Your task to perform on an android device: clear all cookies in the chrome app Image 0: 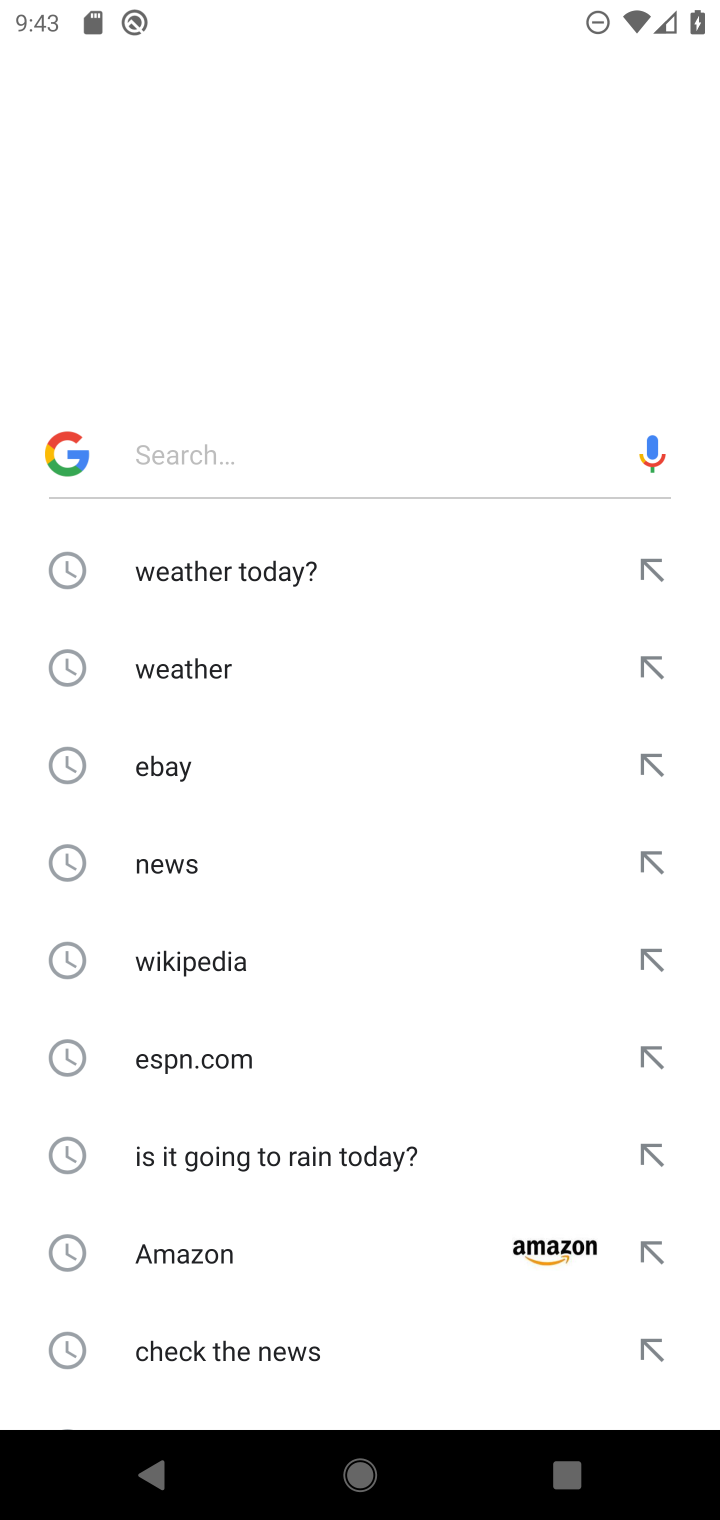
Step 0: press home button
Your task to perform on an android device: clear all cookies in the chrome app Image 1: 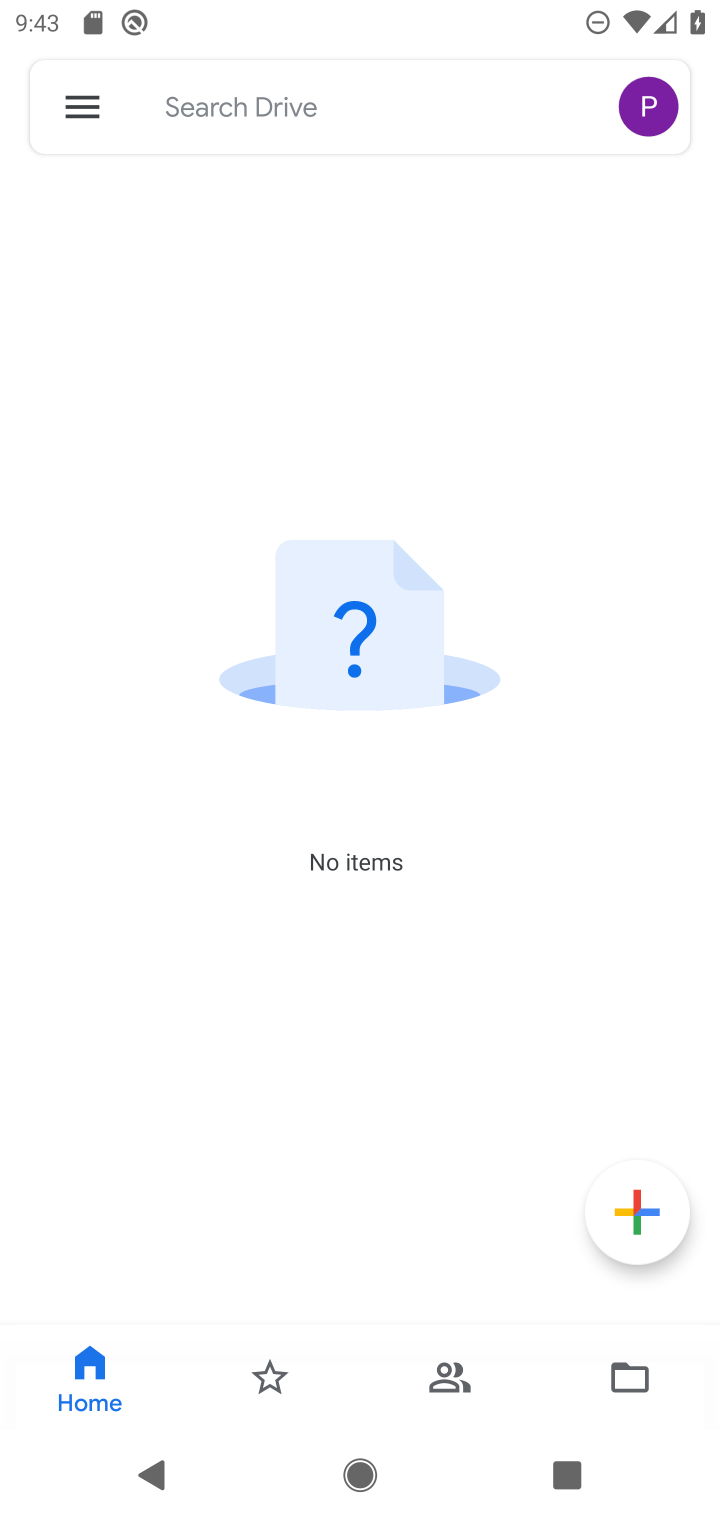
Step 1: press home button
Your task to perform on an android device: clear all cookies in the chrome app Image 2: 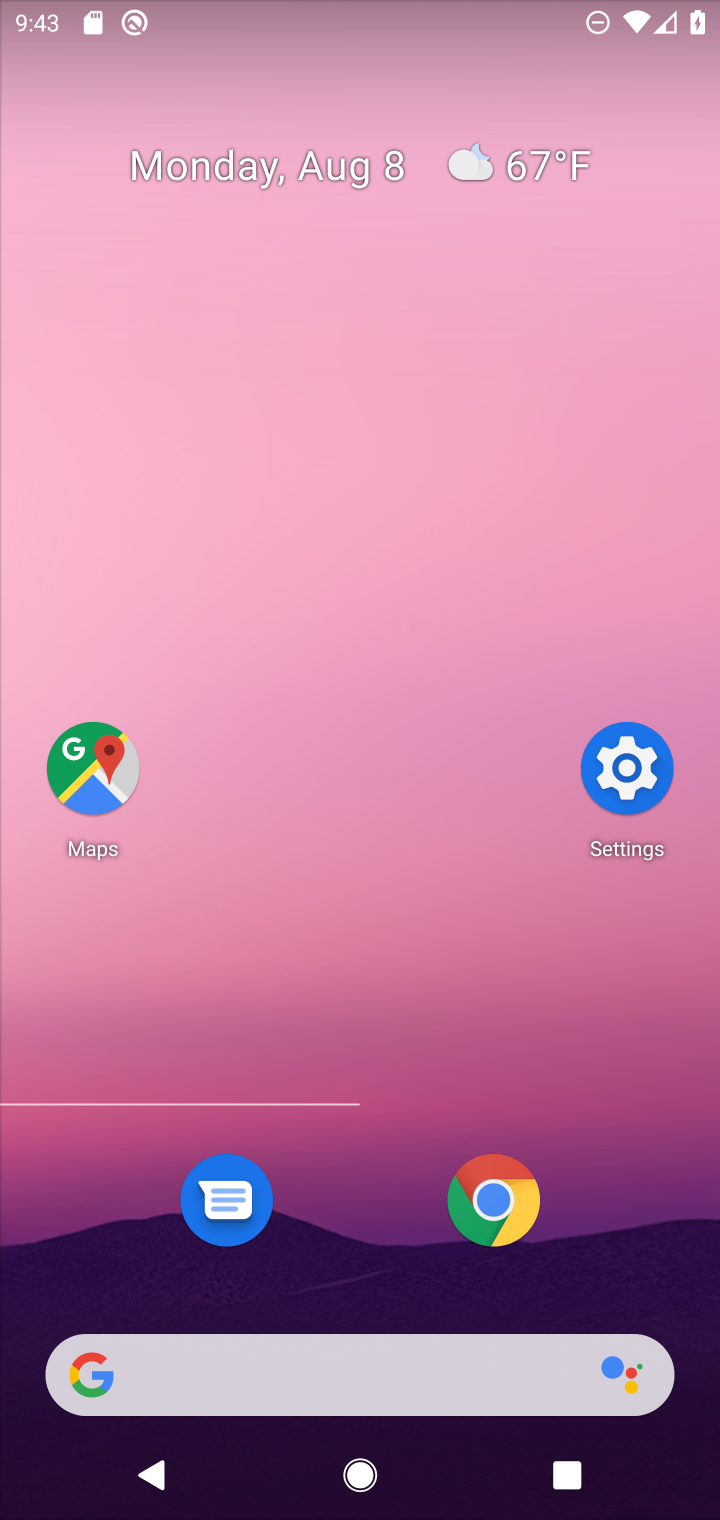
Step 2: press home button
Your task to perform on an android device: clear all cookies in the chrome app Image 3: 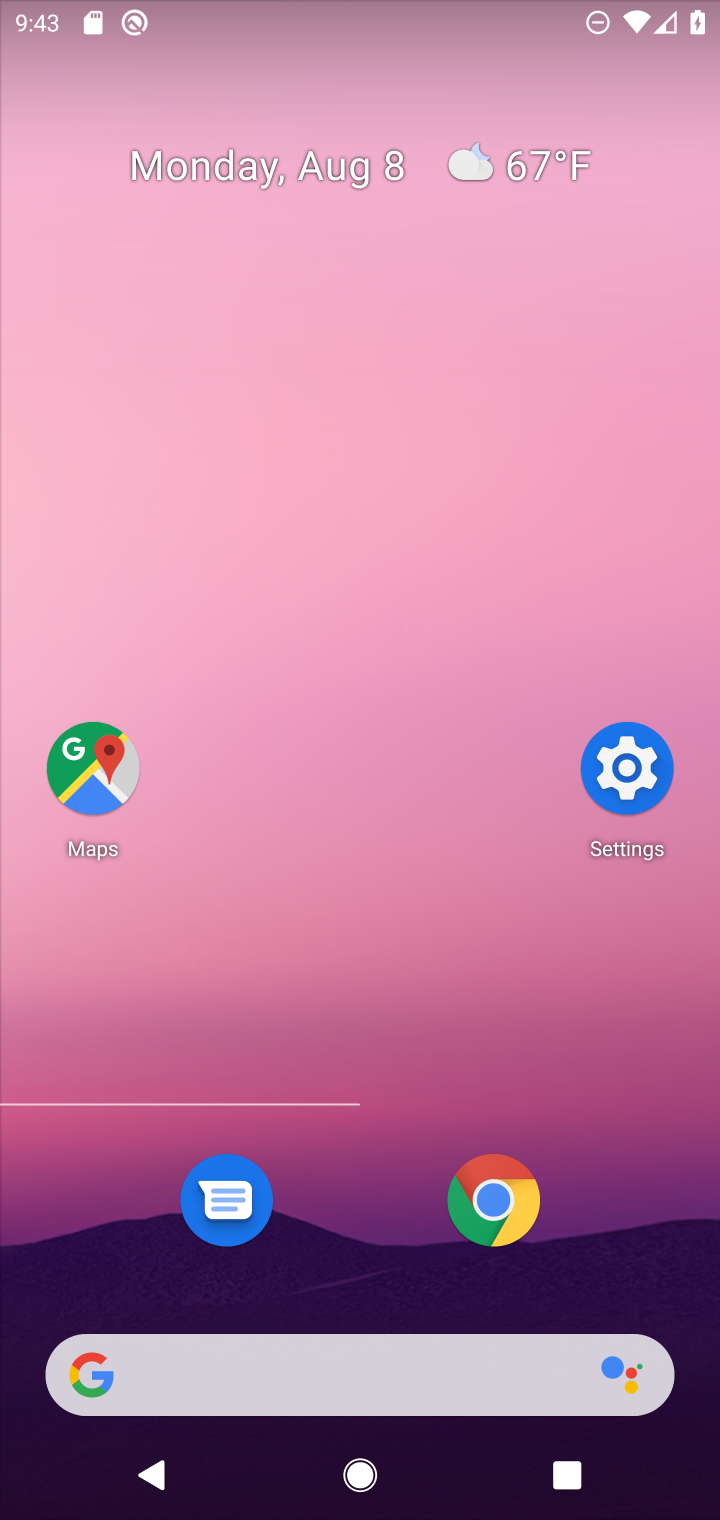
Step 3: click (490, 1189)
Your task to perform on an android device: clear all cookies in the chrome app Image 4: 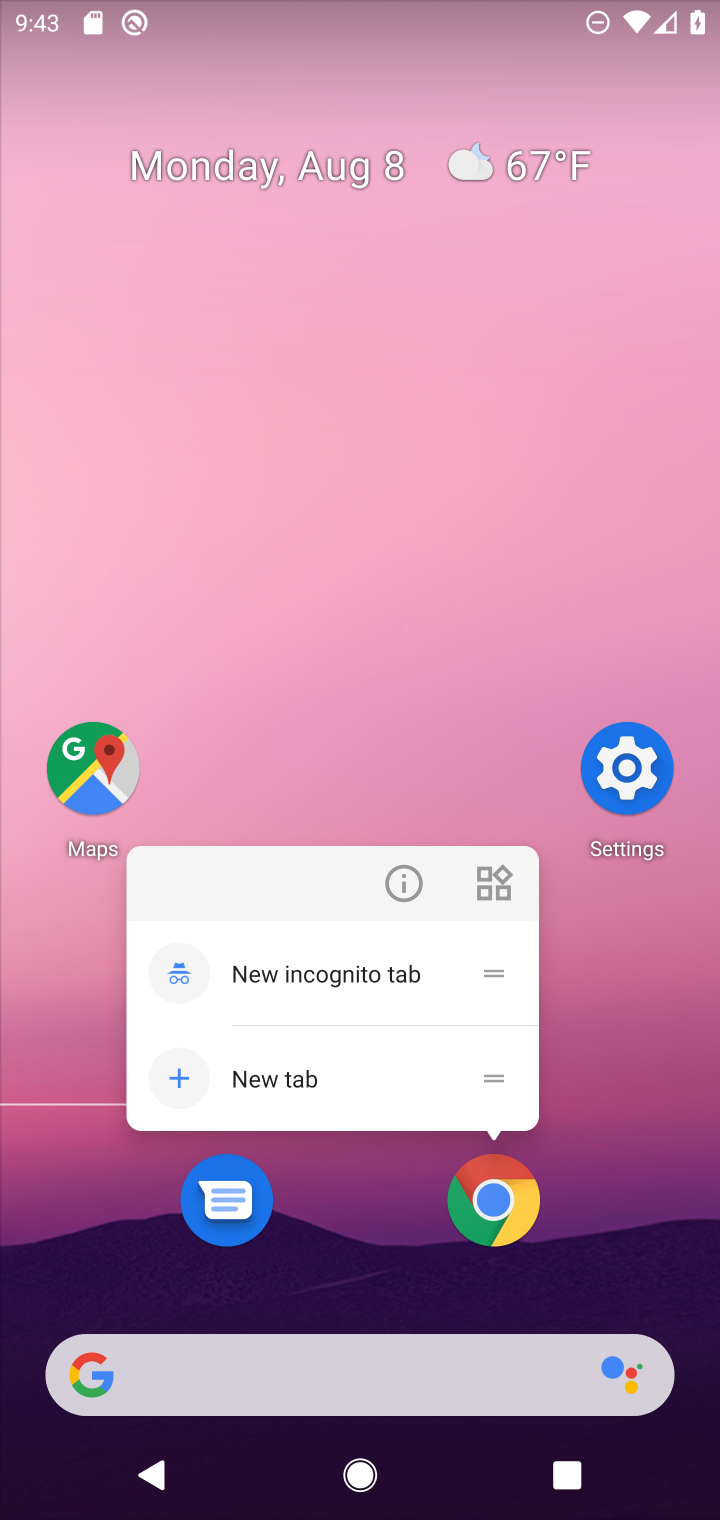
Step 4: click (490, 1196)
Your task to perform on an android device: clear all cookies in the chrome app Image 5: 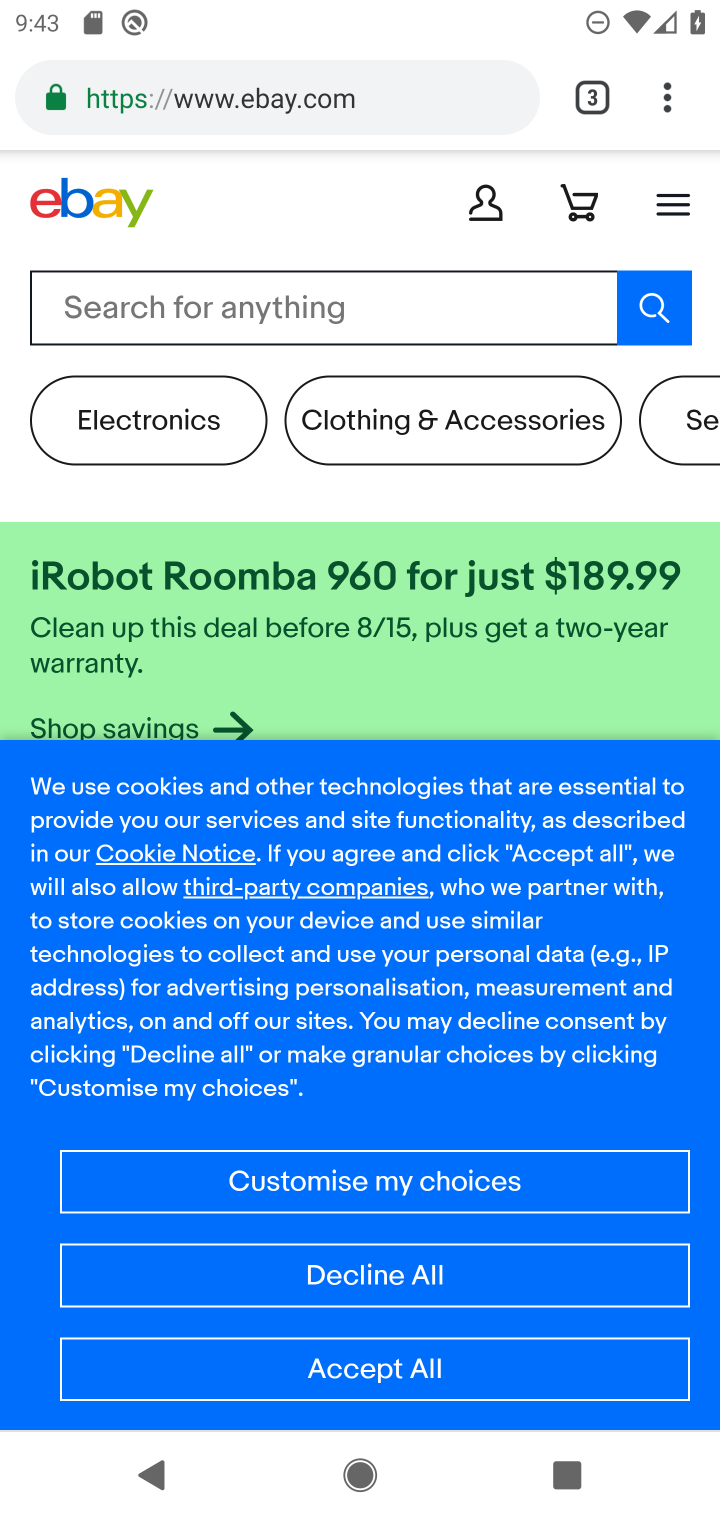
Step 5: drag from (660, 100) to (452, 1239)
Your task to perform on an android device: clear all cookies in the chrome app Image 6: 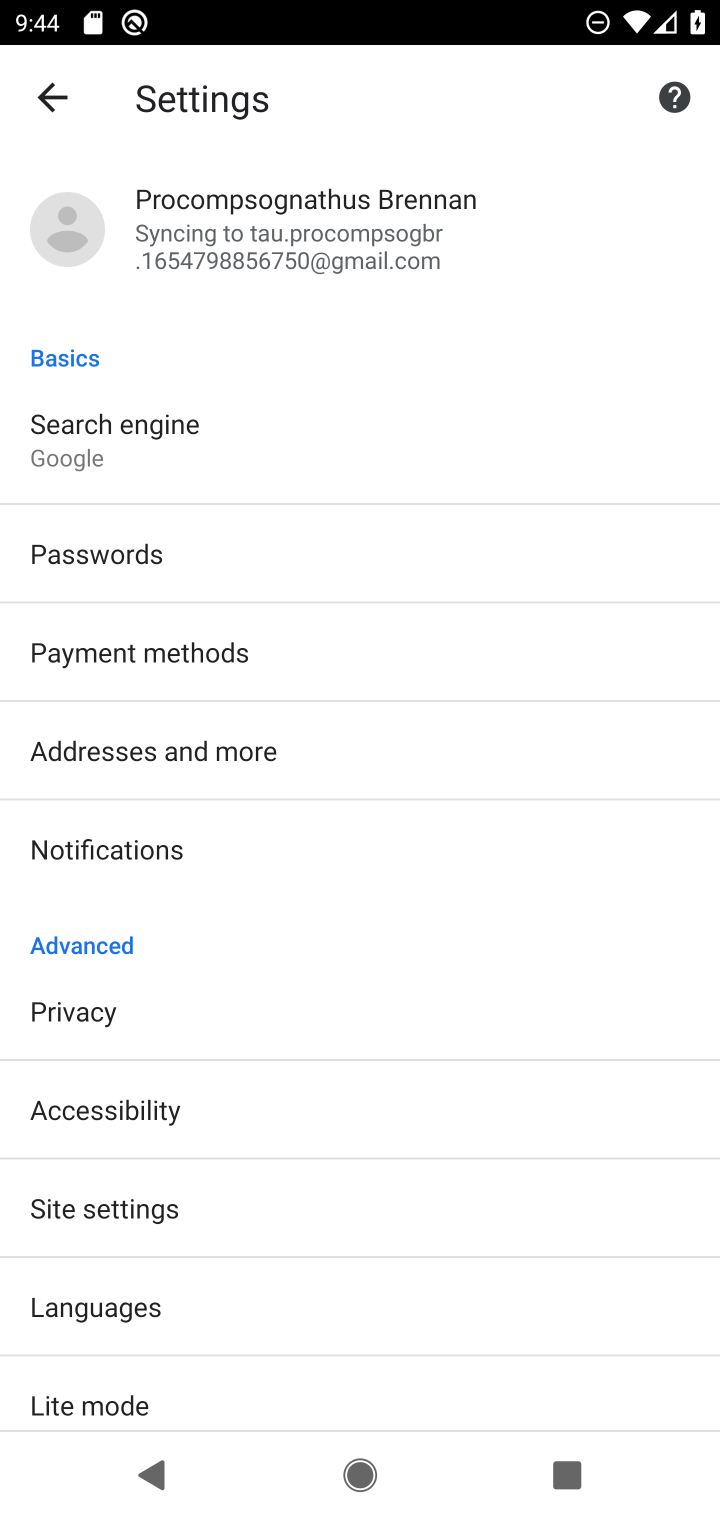
Step 6: click (68, 1015)
Your task to perform on an android device: clear all cookies in the chrome app Image 7: 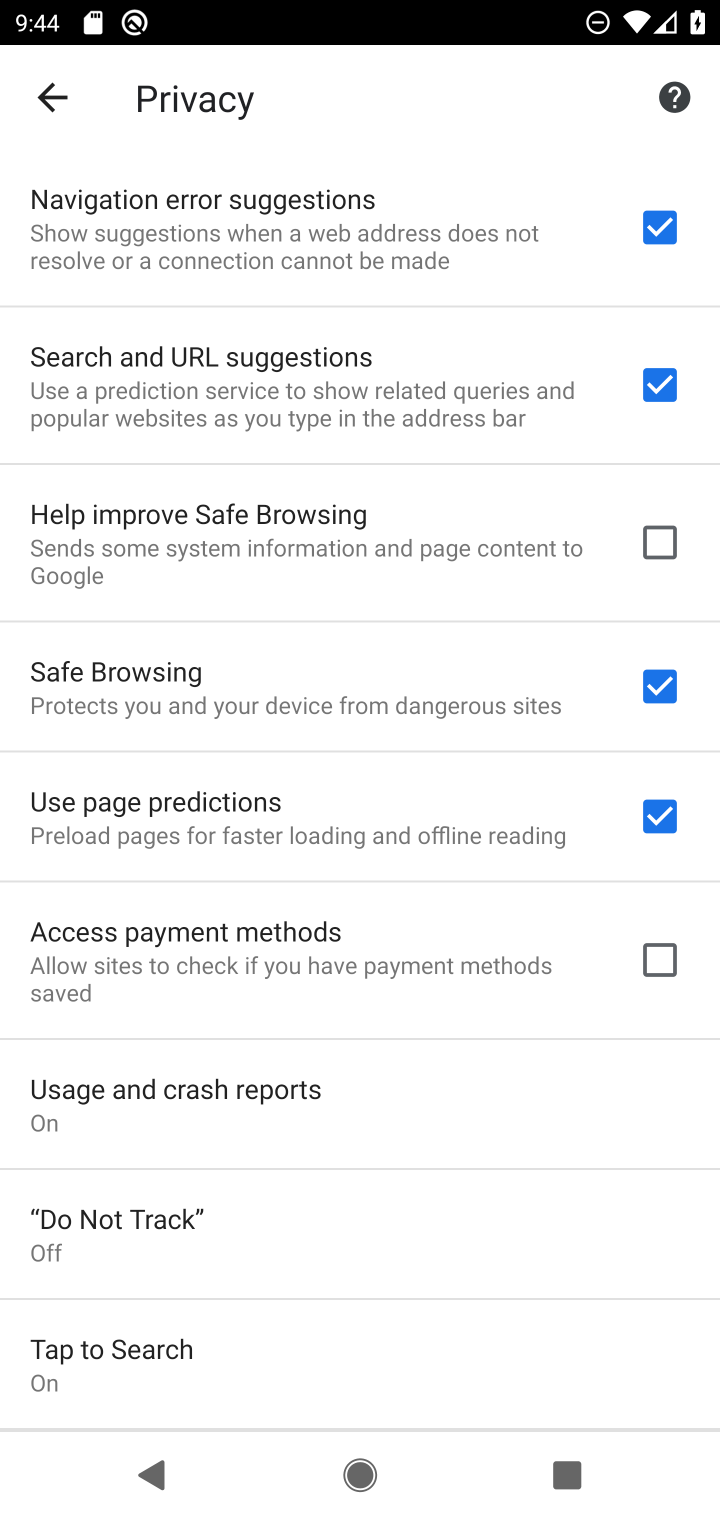
Step 7: drag from (365, 1325) to (539, 307)
Your task to perform on an android device: clear all cookies in the chrome app Image 8: 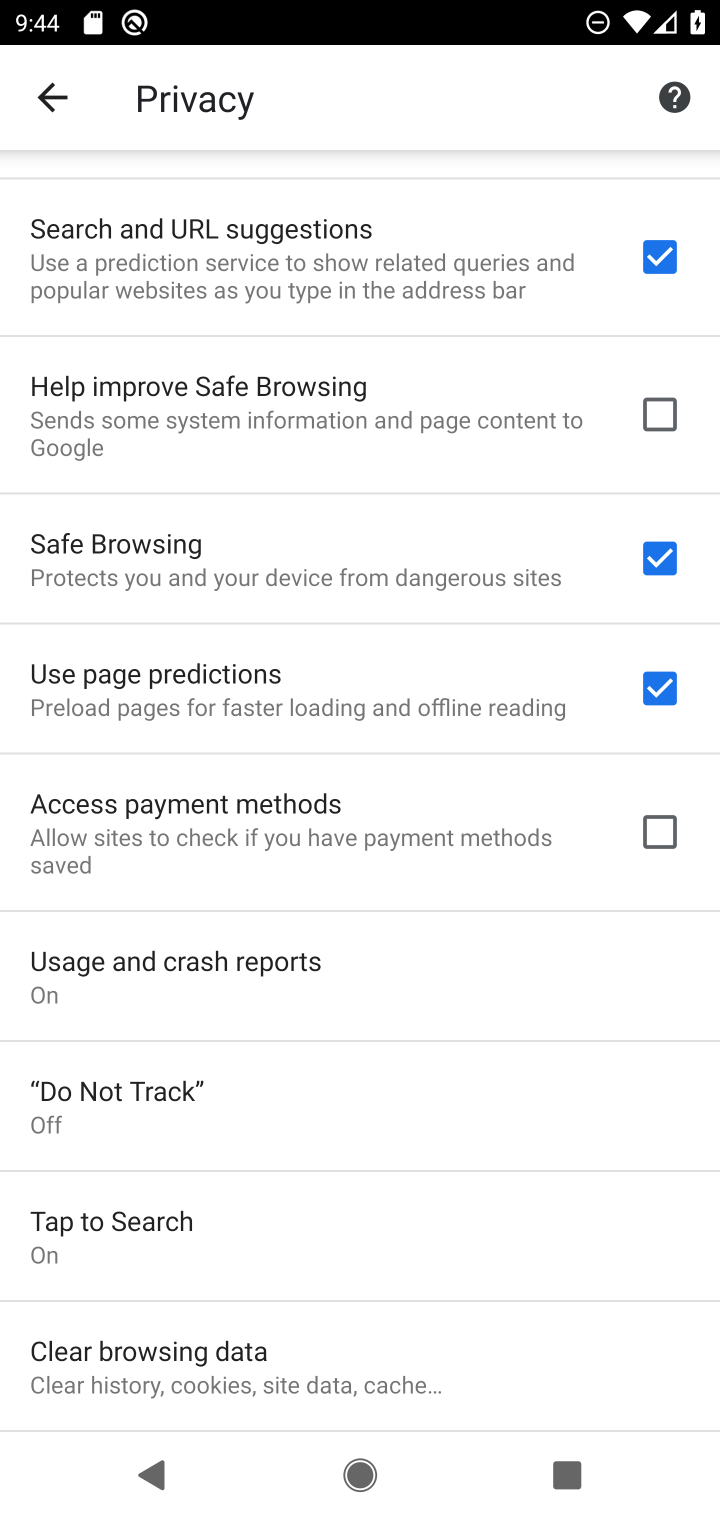
Step 8: click (255, 1362)
Your task to perform on an android device: clear all cookies in the chrome app Image 9: 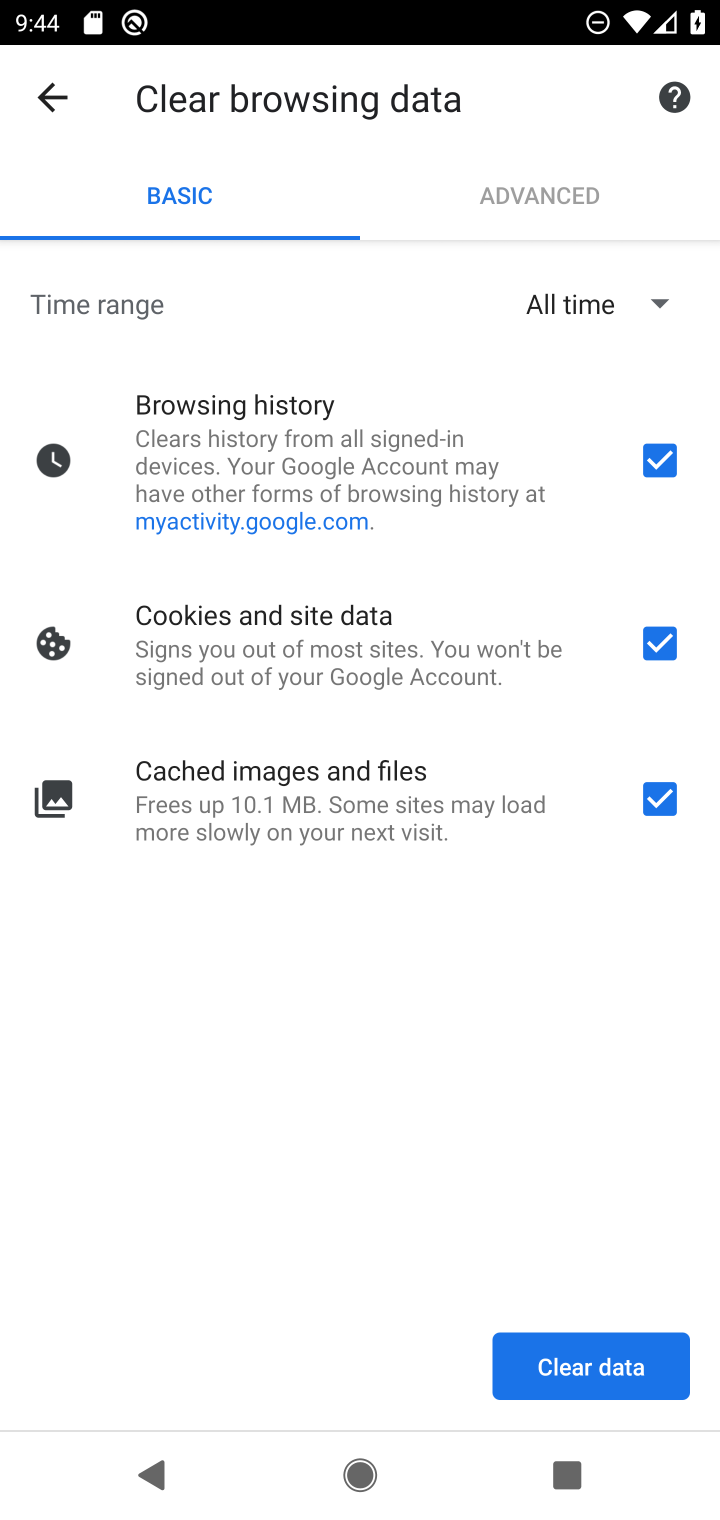
Step 9: click (657, 439)
Your task to perform on an android device: clear all cookies in the chrome app Image 10: 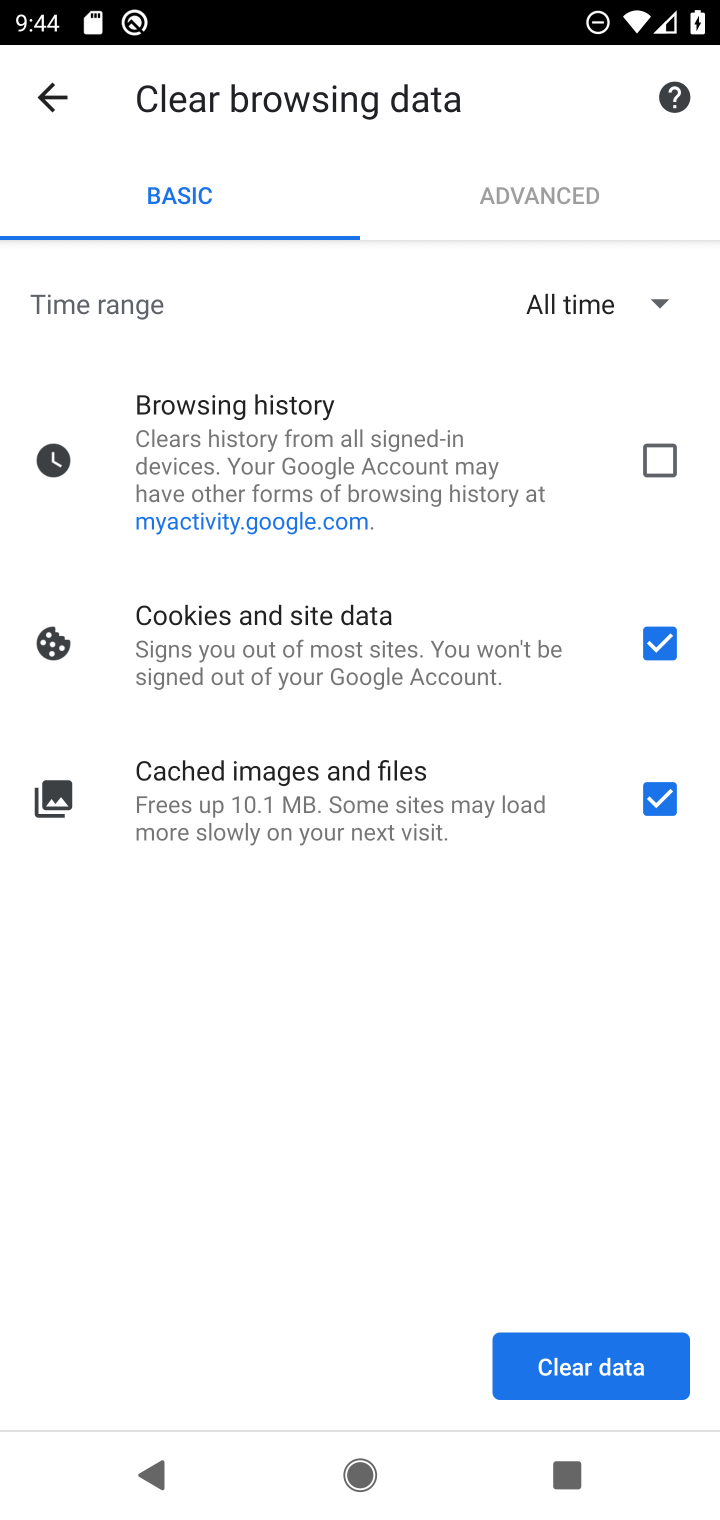
Step 10: click (652, 791)
Your task to perform on an android device: clear all cookies in the chrome app Image 11: 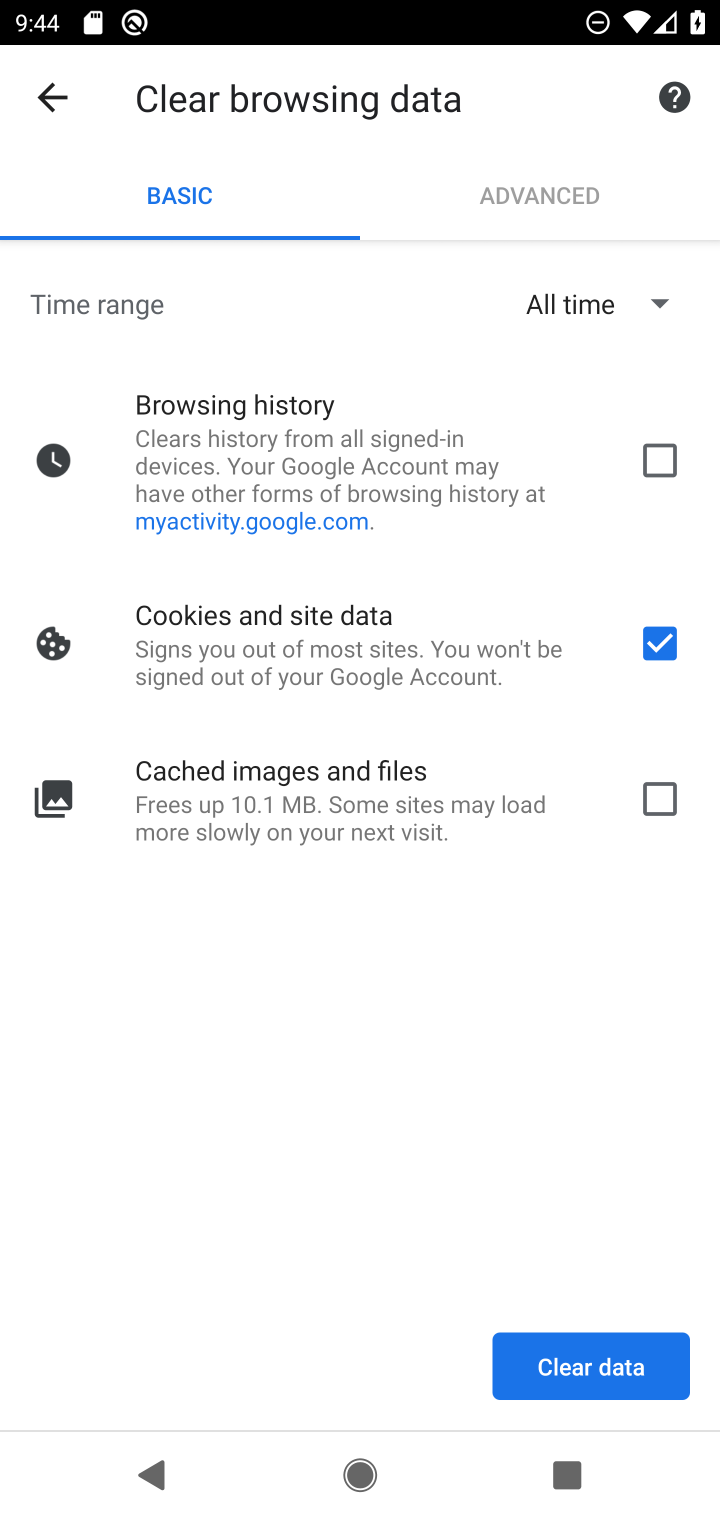
Step 11: click (596, 1358)
Your task to perform on an android device: clear all cookies in the chrome app Image 12: 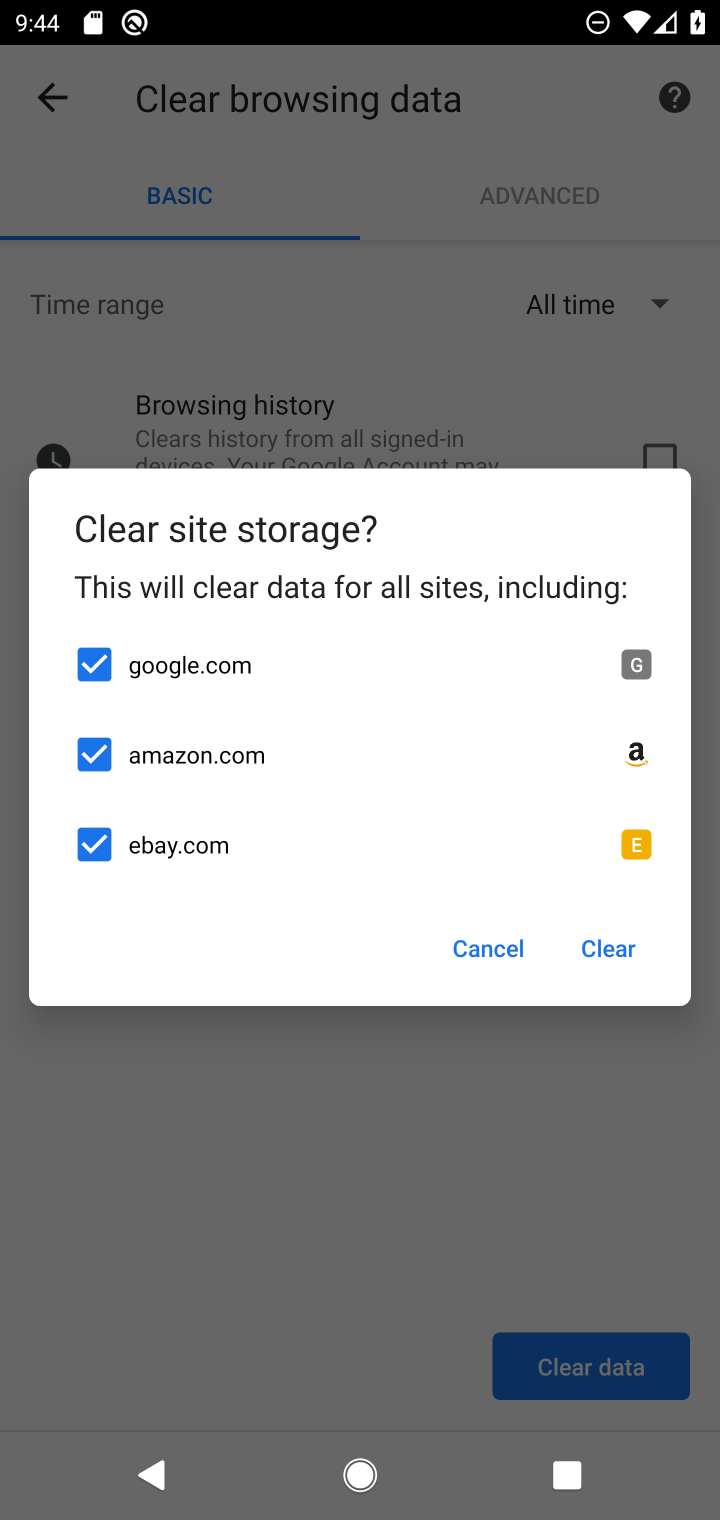
Step 12: click (599, 942)
Your task to perform on an android device: clear all cookies in the chrome app Image 13: 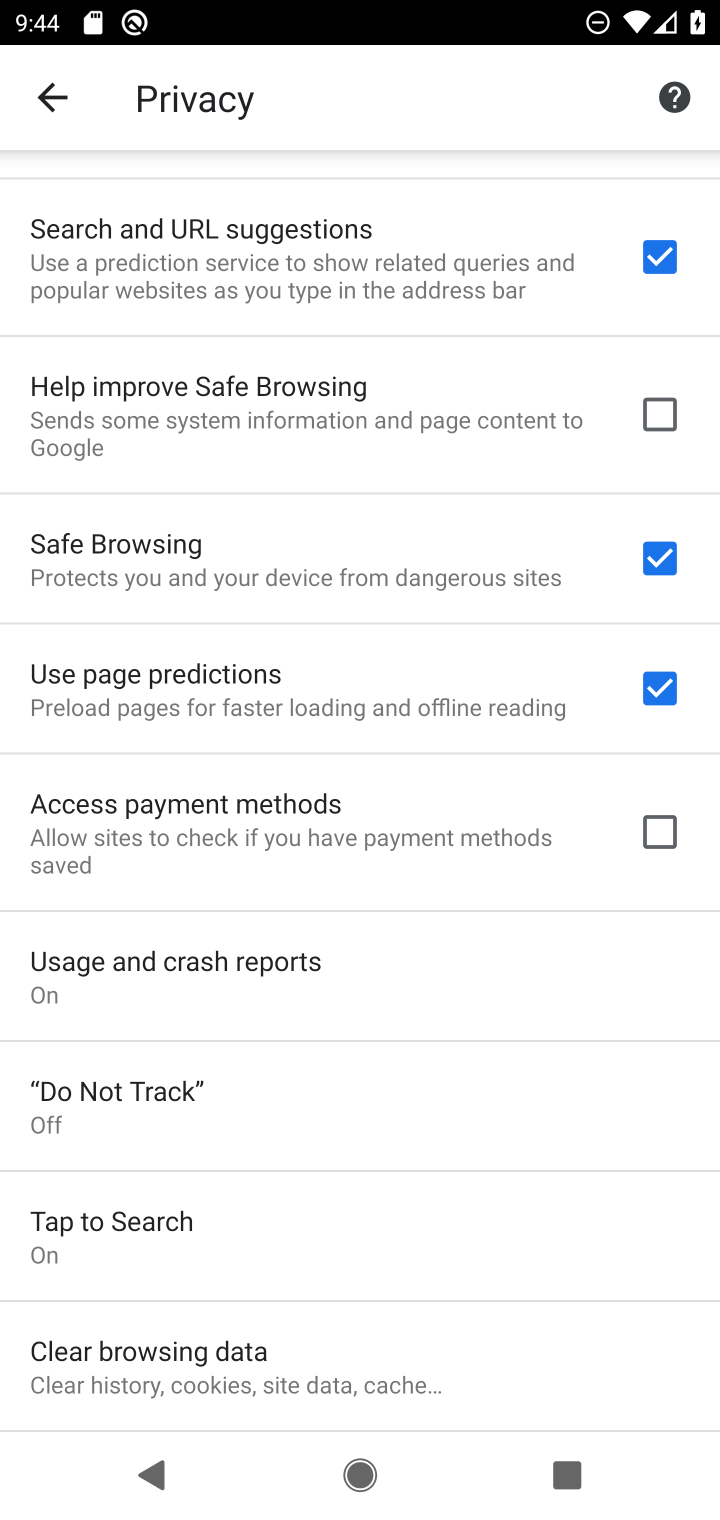
Step 13: task complete